Your task to perform on an android device: open a new tab in the chrome app Image 0: 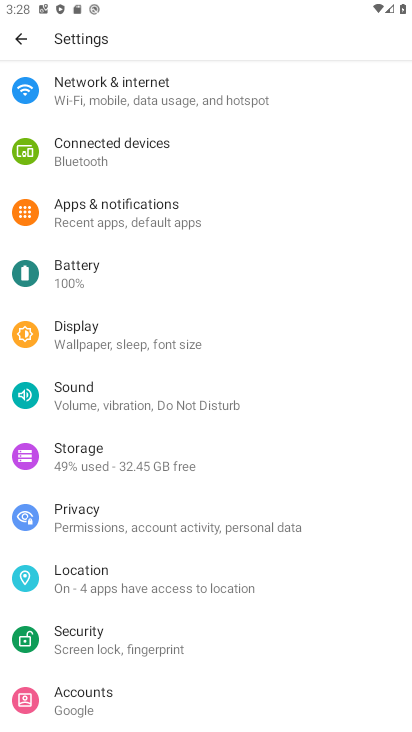
Step 0: press home button
Your task to perform on an android device: open a new tab in the chrome app Image 1: 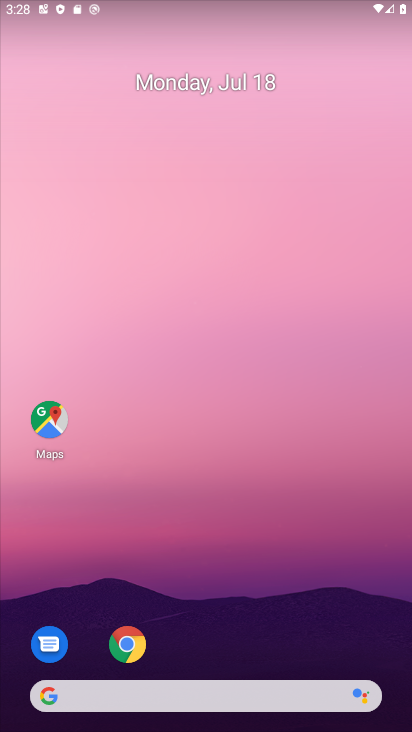
Step 1: click (129, 644)
Your task to perform on an android device: open a new tab in the chrome app Image 2: 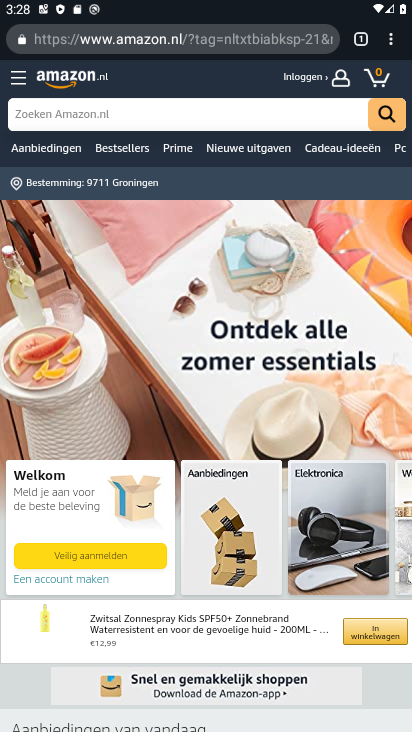
Step 2: click (391, 47)
Your task to perform on an android device: open a new tab in the chrome app Image 3: 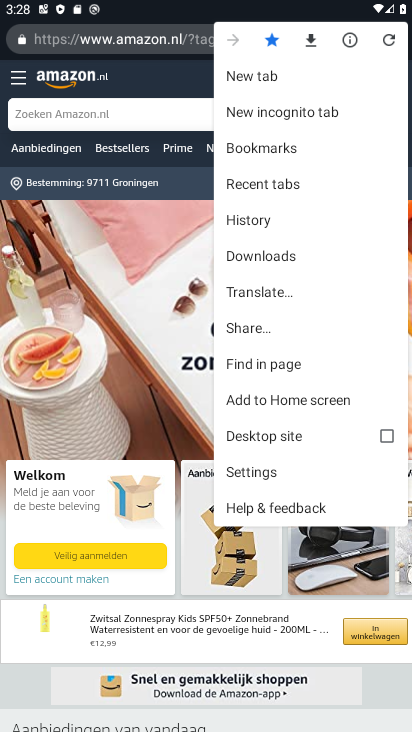
Step 3: click (252, 75)
Your task to perform on an android device: open a new tab in the chrome app Image 4: 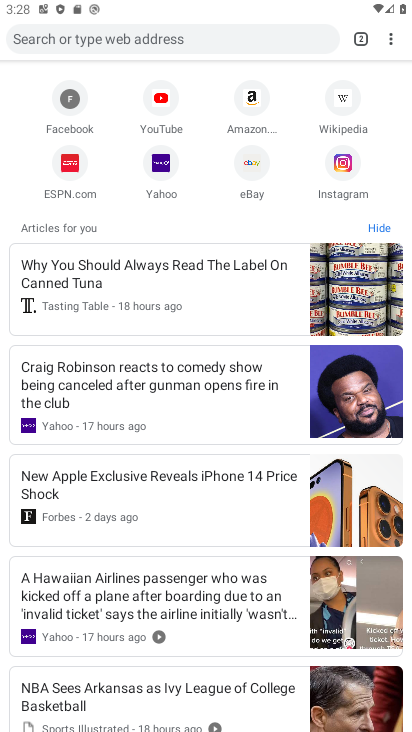
Step 4: task complete